Your task to perform on an android device: Go to Google maps Image 0: 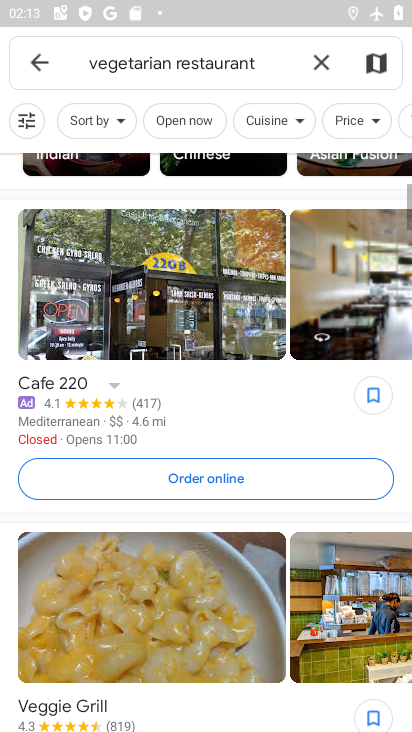
Step 0: drag from (171, 637) to (237, 121)
Your task to perform on an android device: Go to Google maps Image 1: 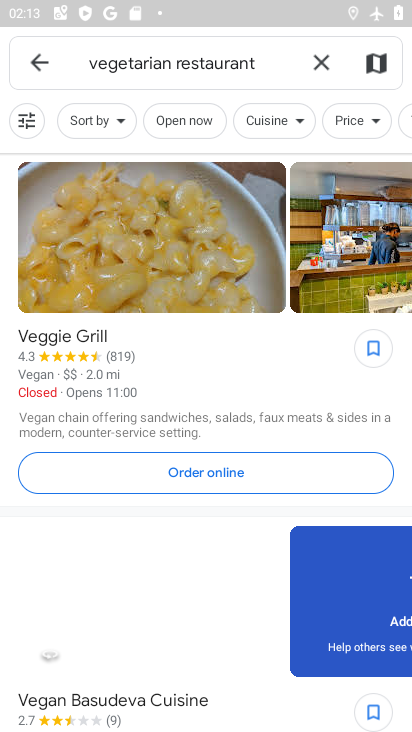
Step 1: task complete